Your task to perform on an android device: turn on translation in the chrome app Image 0: 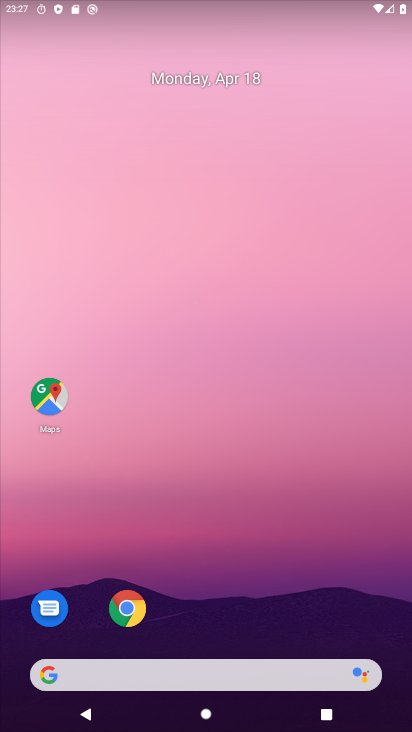
Step 0: drag from (303, 339) to (403, 152)
Your task to perform on an android device: turn on translation in the chrome app Image 1: 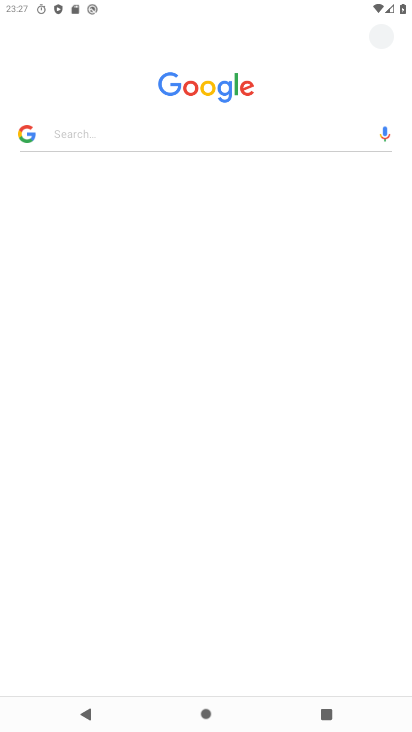
Step 1: press home button
Your task to perform on an android device: turn on translation in the chrome app Image 2: 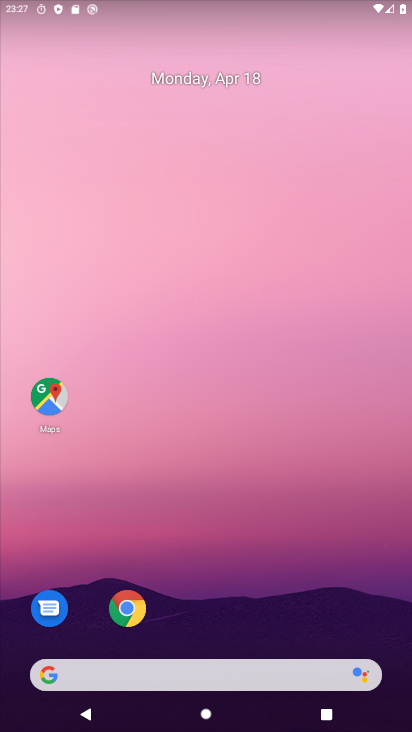
Step 2: click (125, 609)
Your task to perform on an android device: turn on translation in the chrome app Image 3: 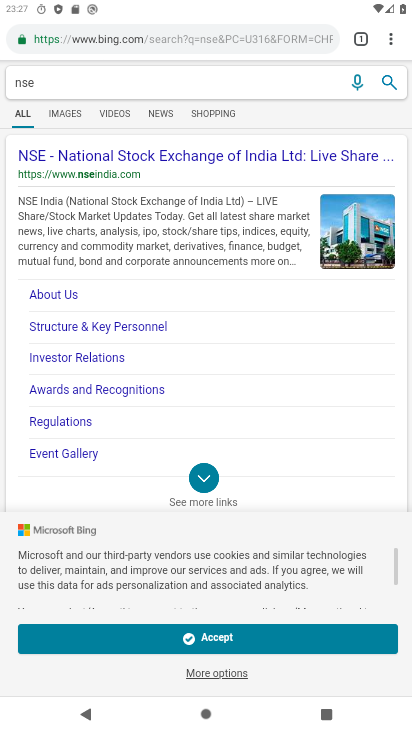
Step 3: click (390, 40)
Your task to perform on an android device: turn on translation in the chrome app Image 4: 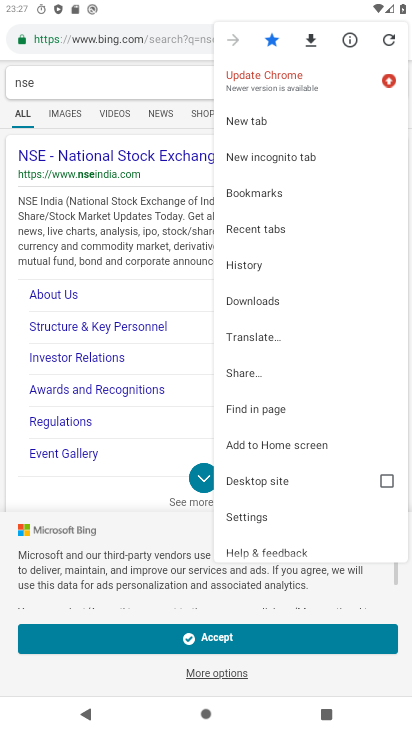
Step 4: click (243, 518)
Your task to perform on an android device: turn on translation in the chrome app Image 5: 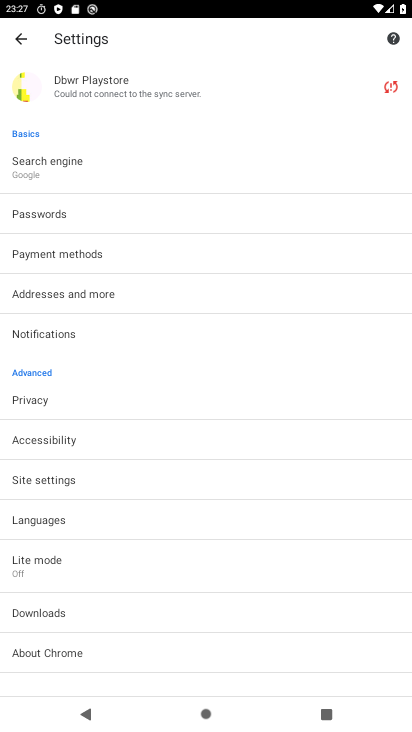
Step 5: click (49, 530)
Your task to perform on an android device: turn on translation in the chrome app Image 6: 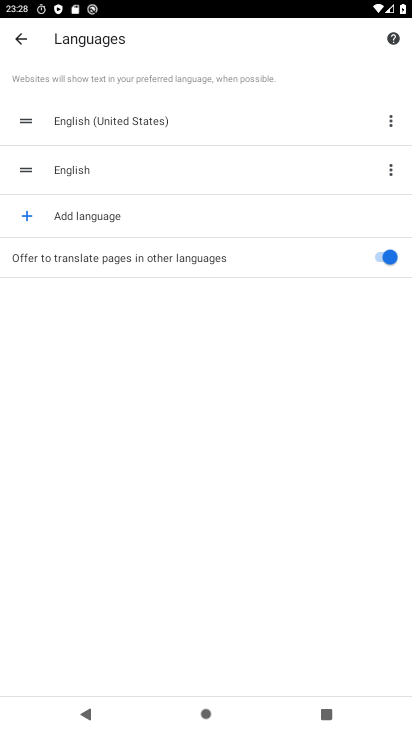
Step 6: task complete